Your task to perform on an android device: Go to Yahoo.com Image 0: 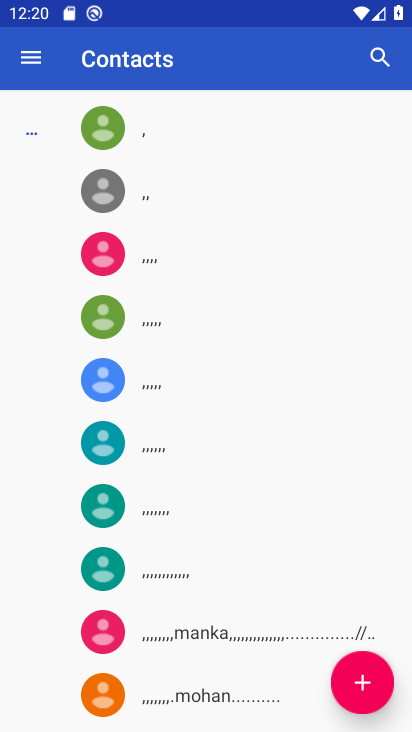
Step 0: press back button
Your task to perform on an android device: Go to Yahoo.com Image 1: 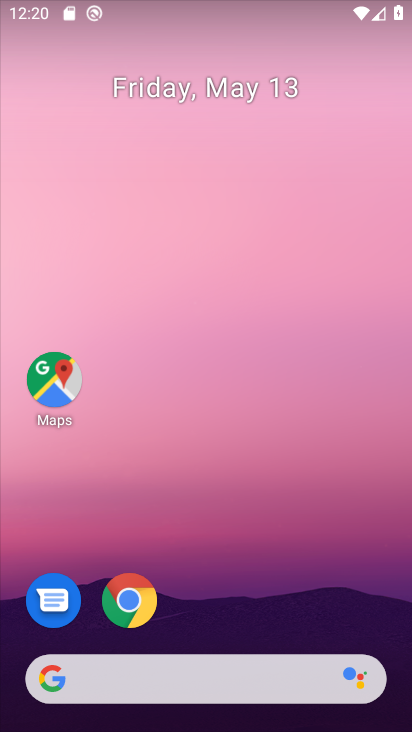
Step 1: click (141, 595)
Your task to perform on an android device: Go to Yahoo.com Image 2: 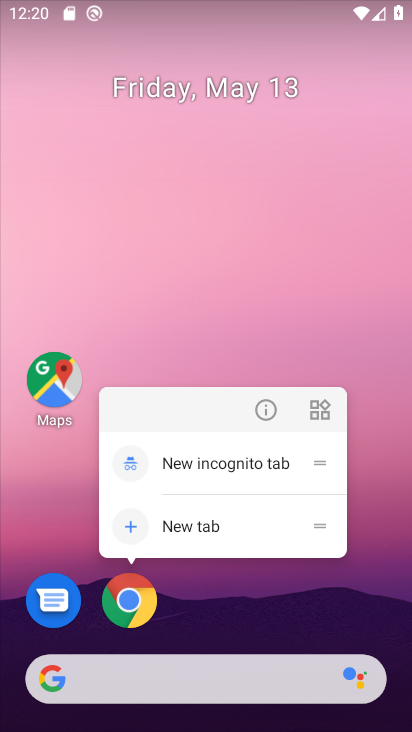
Step 2: click (143, 617)
Your task to perform on an android device: Go to Yahoo.com Image 3: 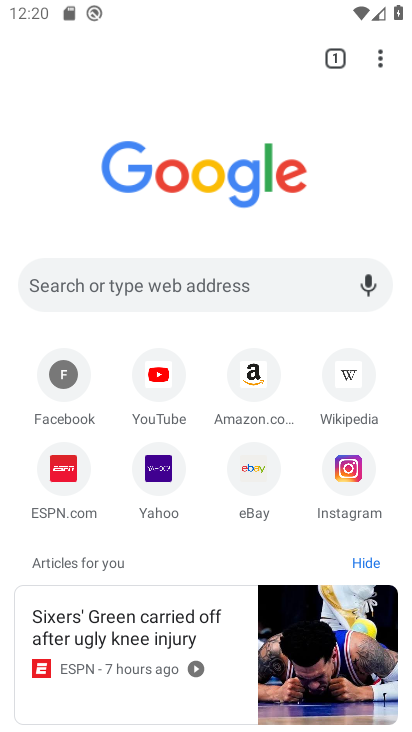
Step 3: click (164, 479)
Your task to perform on an android device: Go to Yahoo.com Image 4: 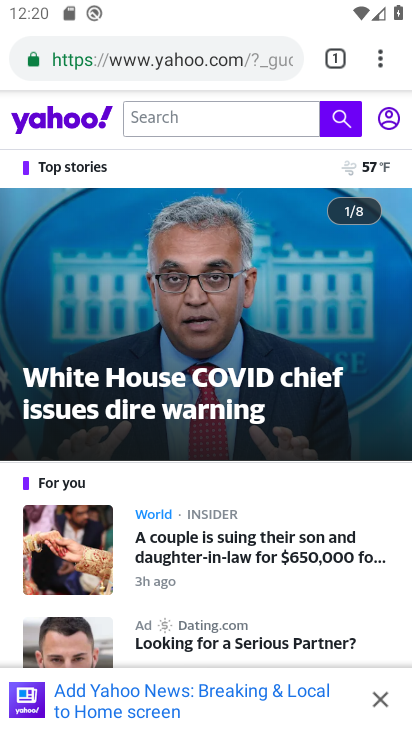
Step 4: task complete